Your task to perform on an android device: Open the web browser Image 0: 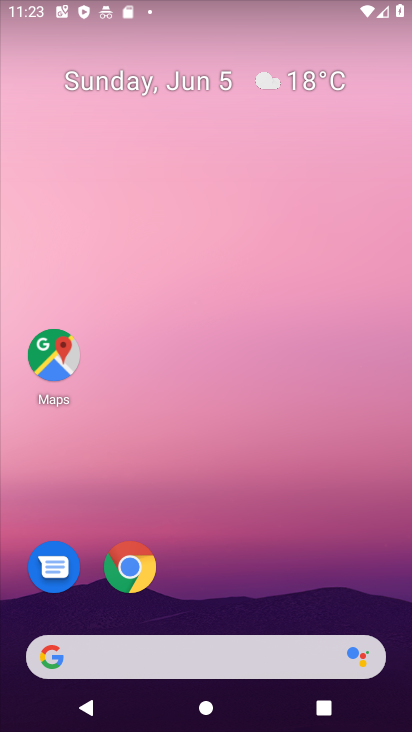
Step 0: click (243, 647)
Your task to perform on an android device: Open the web browser Image 1: 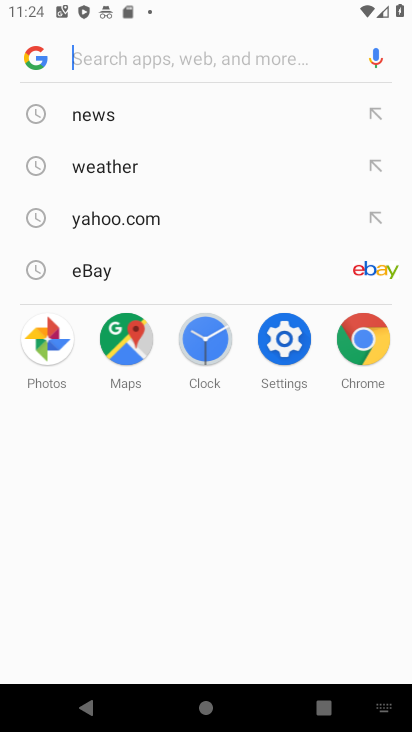
Step 1: task complete